Your task to perform on an android device: Open the web browser Image 0: 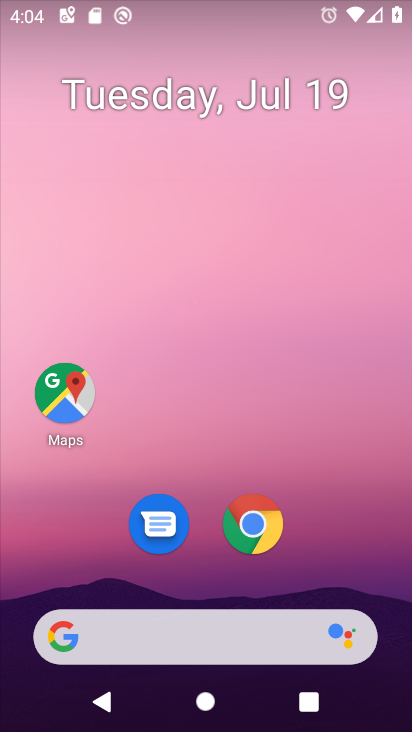
Step 0: drag from (325, 535) to (318, 469)
Your task to perform on an android device: Open the web browser Image 1: 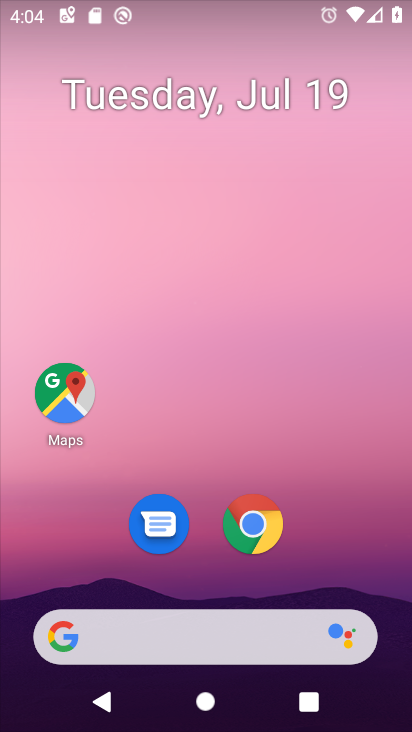
Step 1: click (217, 641)
Your task to perform on an android device: Open the web browser Image 2: 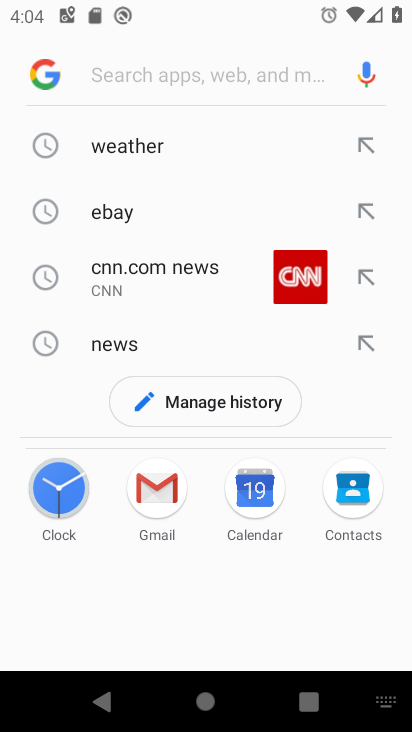
Step 2: task complete